Your task to perform on an android device: turn pop-ups off in chrome Image 0: 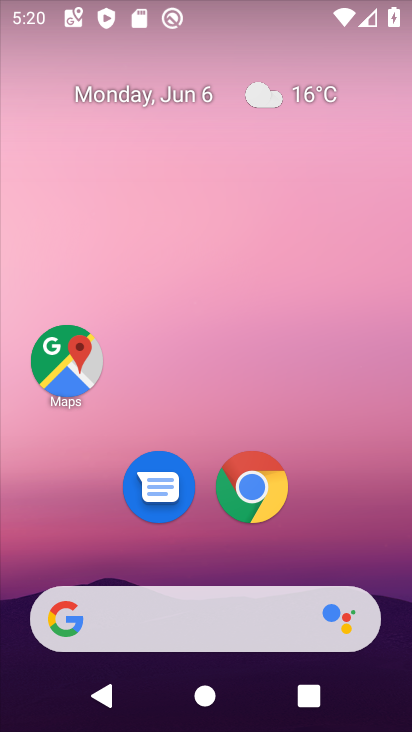
Step 0: click (264, 479)
Your task to perform on an android device: turn pop-ups off in chrome Image 1: 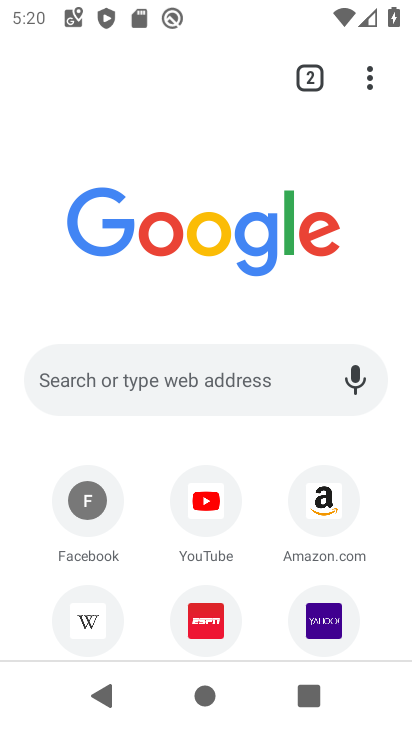
Step 1: click (369, 79)
Your task to perform on an android device: turn pop-ups off in chrome Image 2: 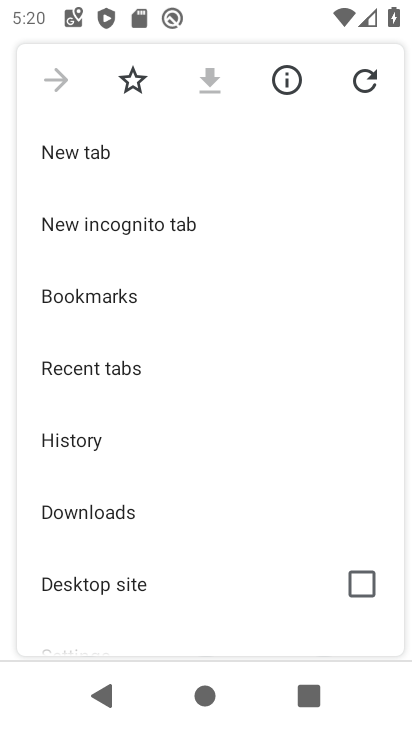
Step 2: drag from (184, 495) to (239, 99)
Your task to perform on an android device: turn pop-ups off in chrome Image 3: 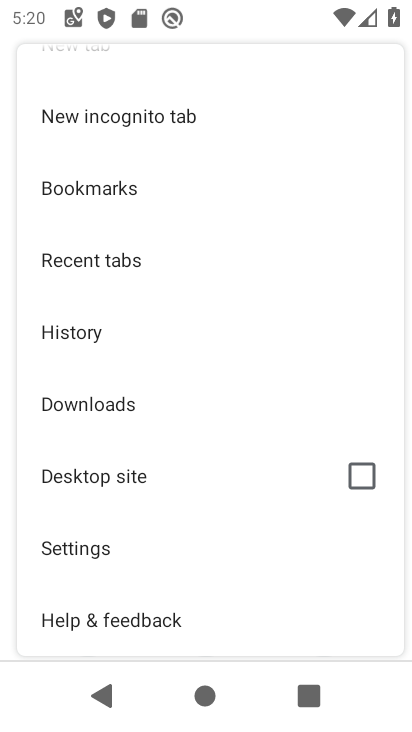
Step 3: click (137, 542)
Your task to perform on an android device: turn pop-ups off in chrome Image 4: 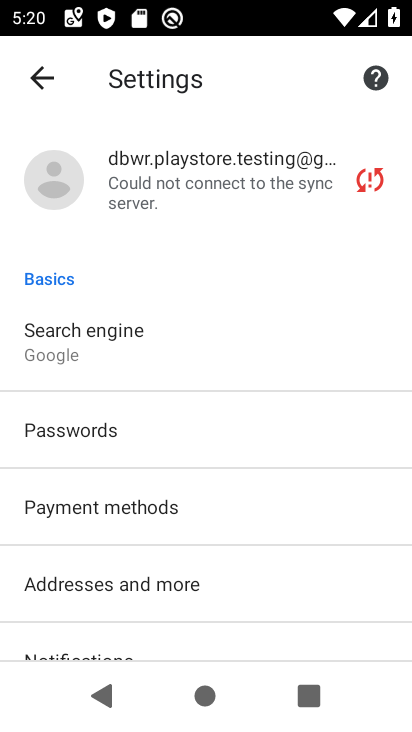
Step 4: drag from (230, 520) to (259, 136)
Your task to perform on an android device: turn pop-ups off in chrome Image 5: 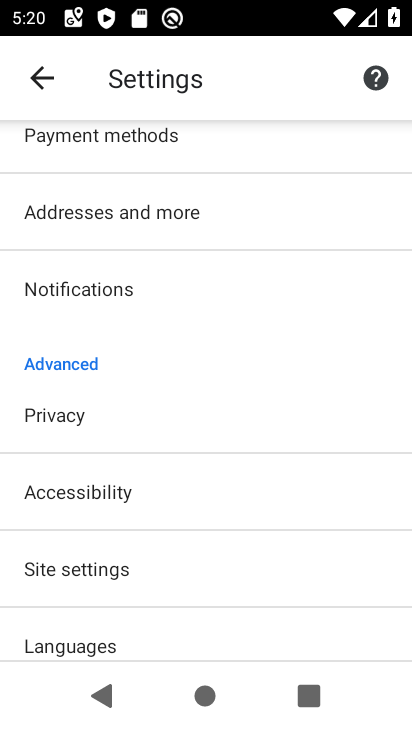
Step 5: click (201, 567)
Your task to perform on an android device: turn pop-ups off in chrome Image 6: 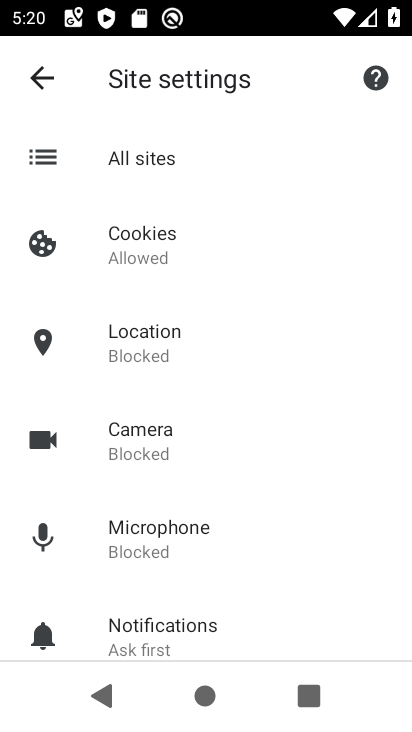
Step 6: drag from (245, 480) to (254, 173)
Your task to perform on an android device: turn pop-ups off in chrome Image 7: 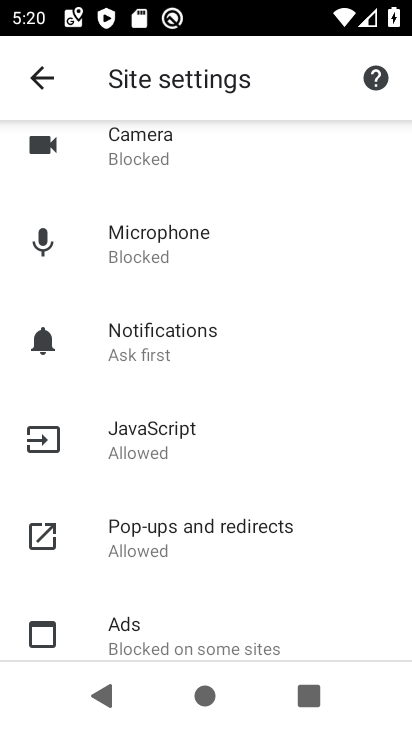
Step 7: click (216, 531)
Your task to perform on an android device: turn pop-ups off in chrome Image 8: 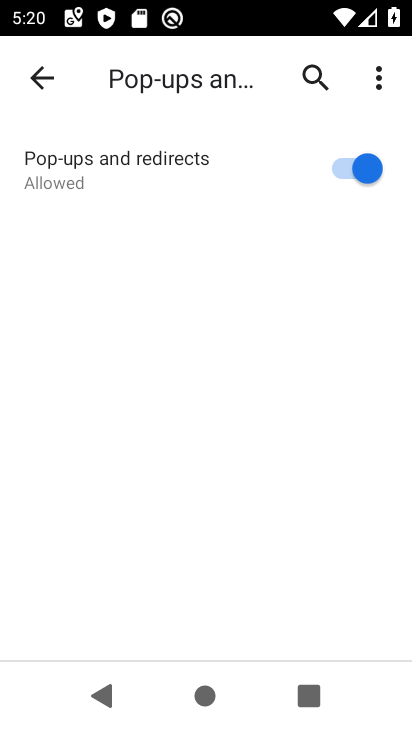
Step 8: click (343, 161)
Your task to perform on an android device: turn pop-ups off in chrome Image 9: 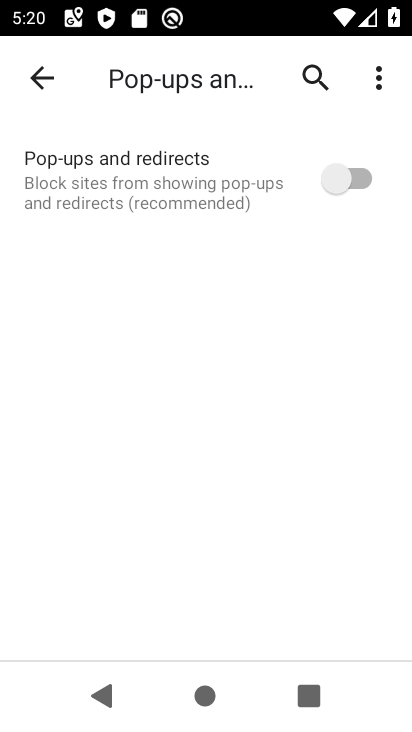
Step 9: task complete